Your task to perform on an android device: Open Google Chrome and open the bookmarks view Image 0: 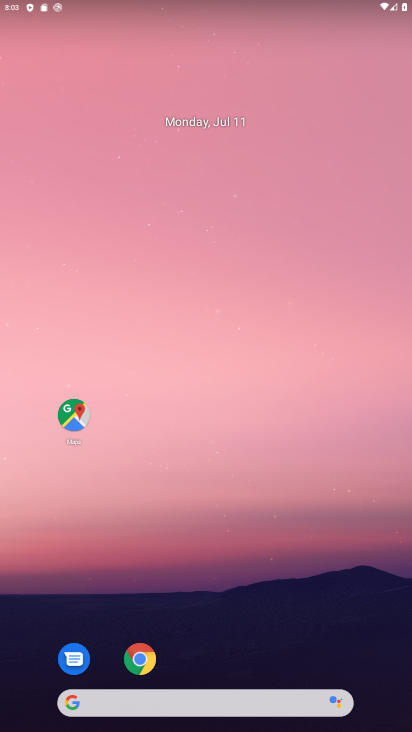
Step 0: click (129, 667)
Your task to perform on an android device: Open Google Chrome and open the bookmarks view Image 1: 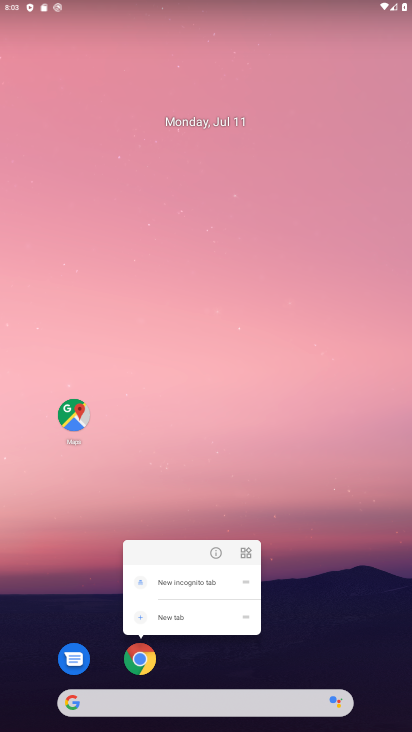
Step 1: click (147, 656)
Your task to perform on an android device: Open Google Chrome and open the bookmarks view Image 2: 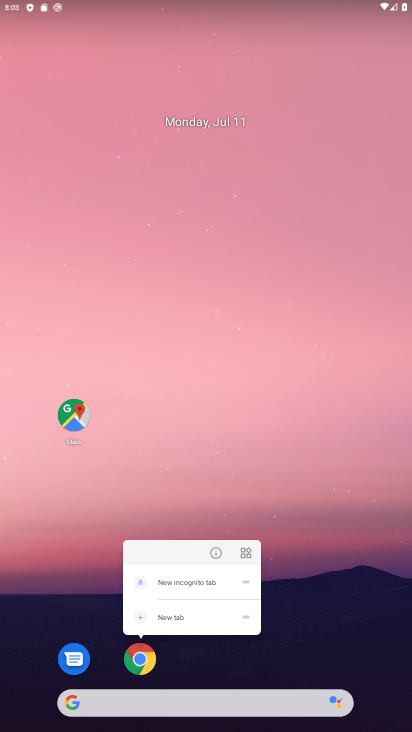
Step 2: click (142, 657)
Your task to perform on an android device: Open Google Chrome and open the bookmarks view Image 3: 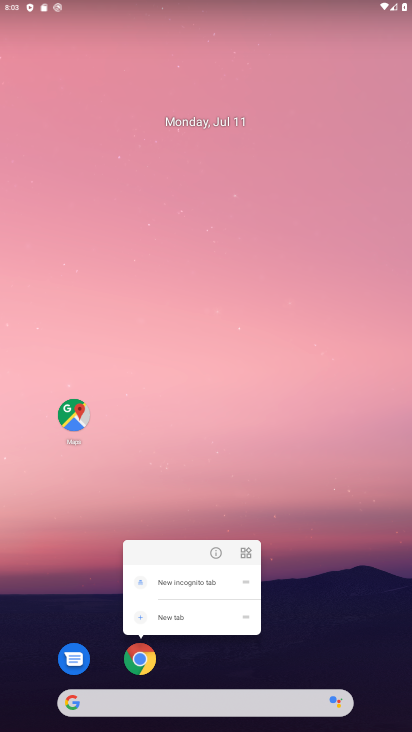
Step 3: click (138, 656)
Your task to perform on an android device: Open Google Chrome and open the bookmarks view Image 4: 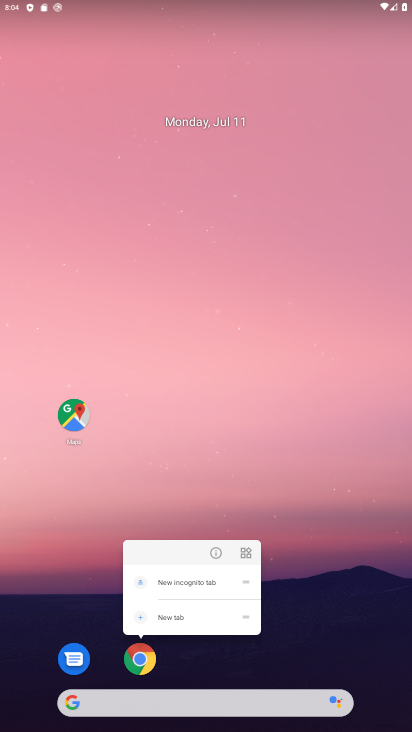
Step 4: click (134, 666)
Your task to perform on an android device: Open Google Chrome and open the bookmarks view Image 5: 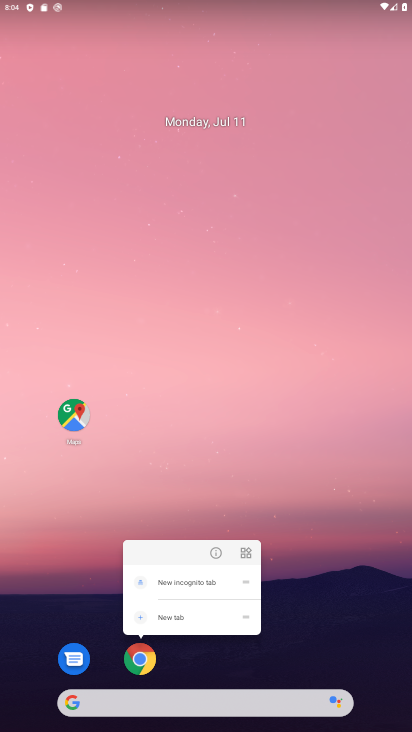
Step 5: task complete